Your task to perform on an android device: Search for a coffee table on Crate & Barrel Image 0: 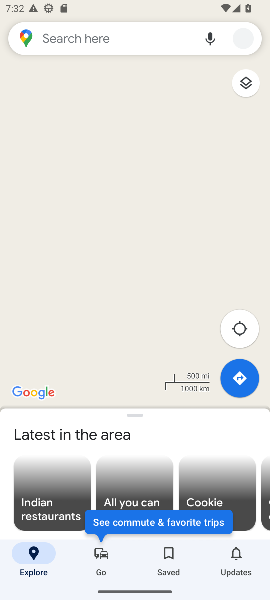
Step 0: press home button
Your task to perform on an android device: Search for a coffee table on Crate & Barrel Image 1: 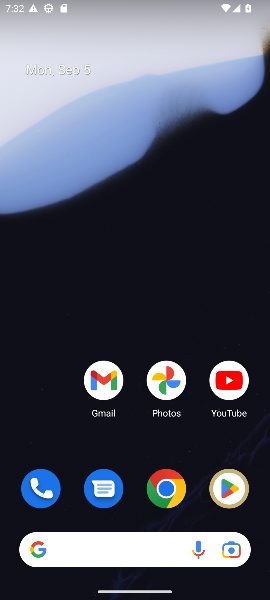
Step 1: click (174, 497)
Your task to perform on an android device: Search for a coffee table on Crate & Barrel Image 2: 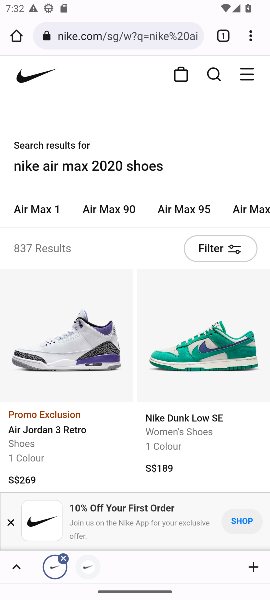
Step 2: click (130, 39)
Your task to perform on an android device: Search for a coffee table on Crate & Barrel Image 3: 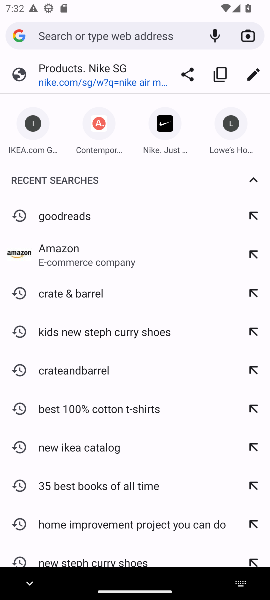
Step 3: type "crate & barrel"
Your task to perform on an android device: Search for a coffee table on Crate & Barrel Image 4: 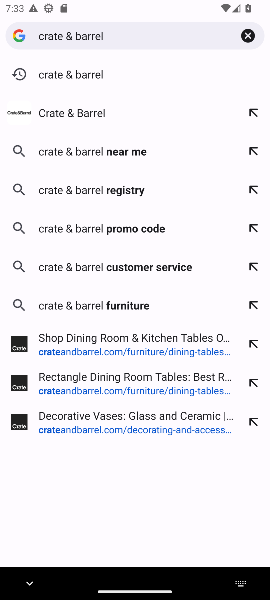
Step 4: press enter
Your task to perform on an android device: Search for a coffee table on Crate & Barrel Image 5: 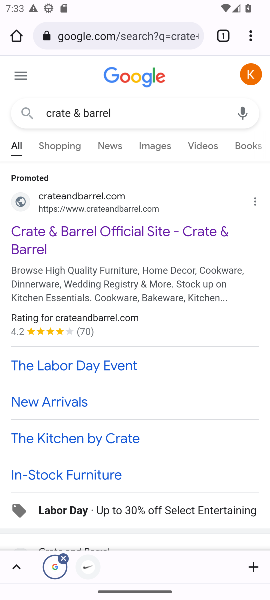
Step 5: click (161, 237)
Your task to perform on an android device: Search for a coffee table on Crate & Barrel Image 6: 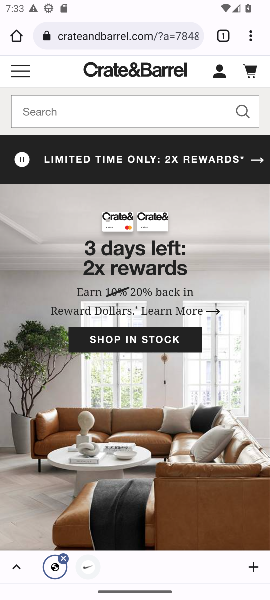
Step 6: click (118, 118)
Your task to perform on an android device: Search for a coffee table on Crate & Barrel Image 7: 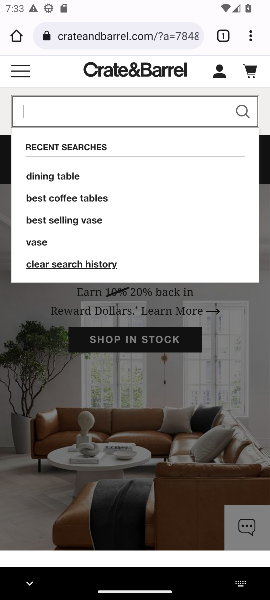
Step 7: type "coffee table"
Your task to perform on an android device: Search for a coffee table on Crate & Barrel Image 8: 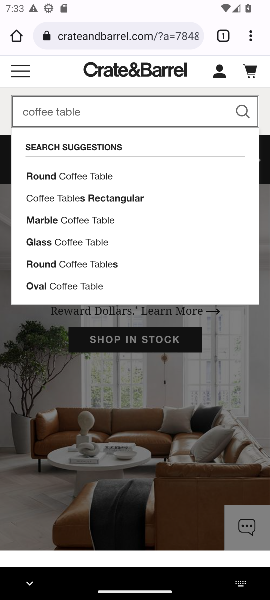
Step 8: press enter
Your task to perform on an android device: Search for a coffee table on Crate & Barrel Image 9: 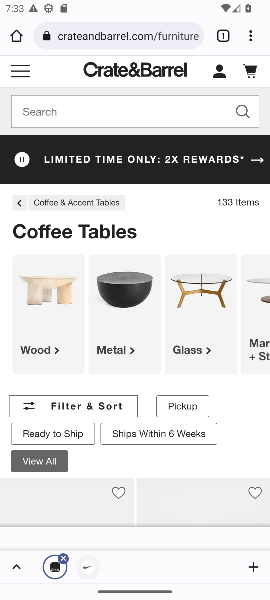
Step 9: drag from (138, 384) to (112, 211)
Your task to perform on an android device: Search for a coffee table on Crate & Barrel Image 10: 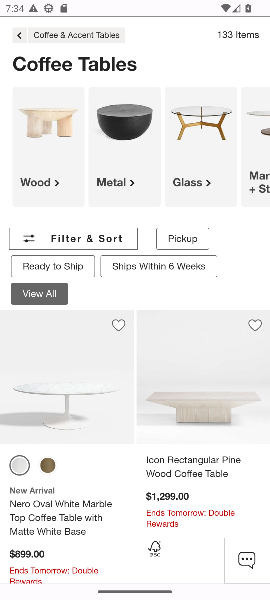
Step 10: drag from (109, 222) to (116, 111)
Your task to perform on an android device: Search for a coffee table on Crate & Barrel Image 11: 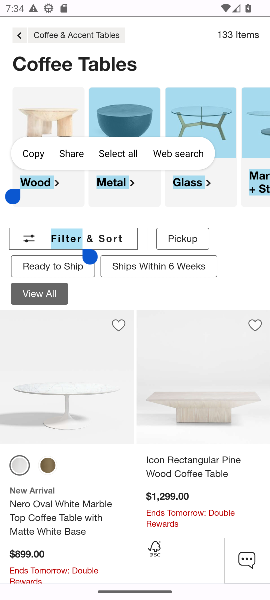
Step 11: click (90, 295)
Your task to perform on an android device: Search for a coffee table on Crate & Barrel Image 12: 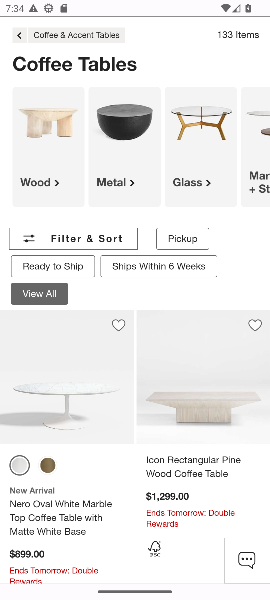
Step 12: drag from (126, 416) to (114, 213)
Your task to perform on an android device: Search for a coffee table on Crate & Barrel Image 13: 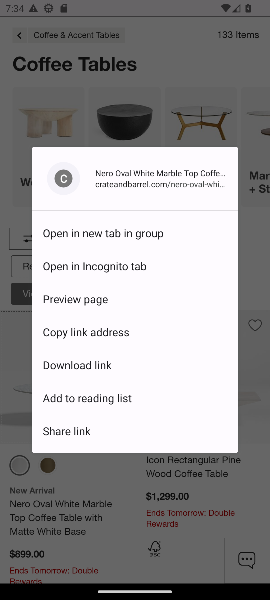
Step 13: click (186, 517)
Your task to perform on an android device: Search for a coffee table on Crate & Barrel Image 14: 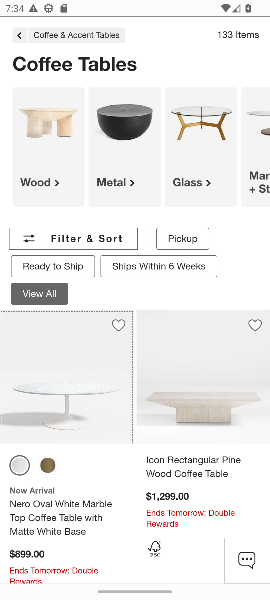
Step 14: task complete